Your task to perform on an android device: Search for seafood restaurants on Google Maps Image 0: 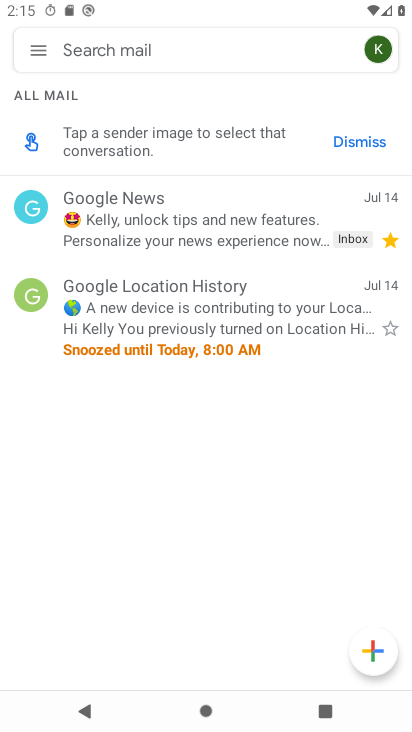
Step 0: press home button
Your task to perform on an android device: Search for seafood restaurants on Google Maps Image 1: 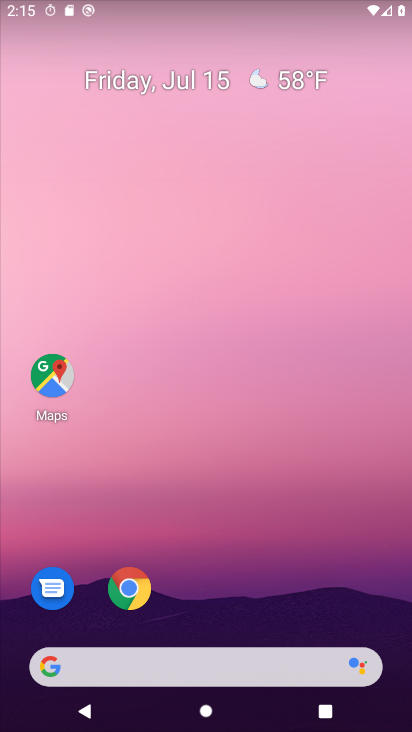
Step 1: click (57, 368)
Your task to perform on an android device: Search for seafood restaurants on Google Maps Image 2: 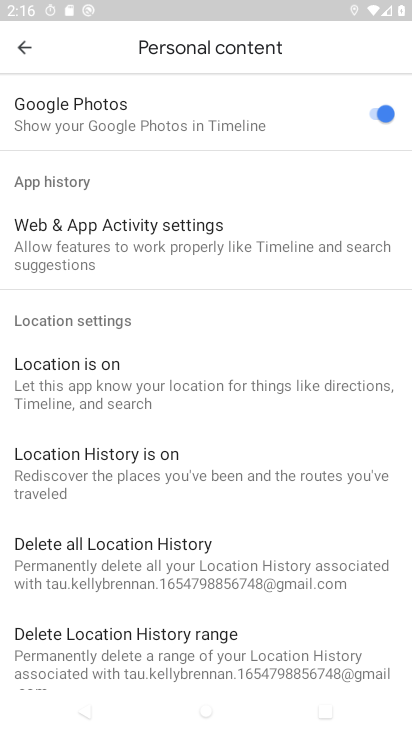
Step 2: click (13, 48)
Your task to perform on an android device: Search for seafood restaurants on Google Maps Image 3: 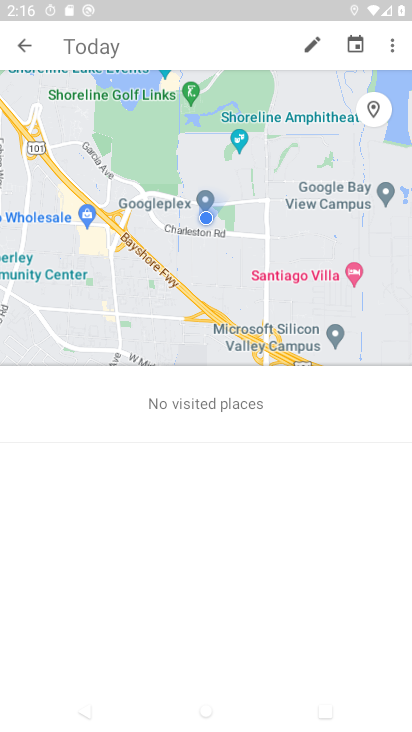
Step 3: click (23, 46)
Your task to perform on an android device: Search for seafood restaurants on Google Maps Image 4: 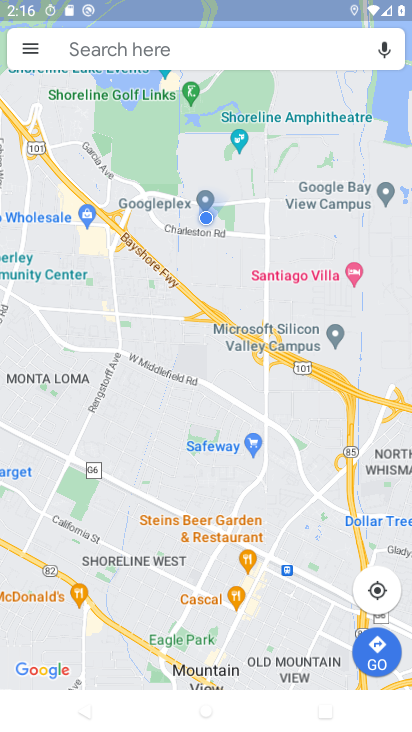
Step 4: click (151, 52)
Your task to perform on an android device: Search for seafood restaurants on Google Maps Image 5: 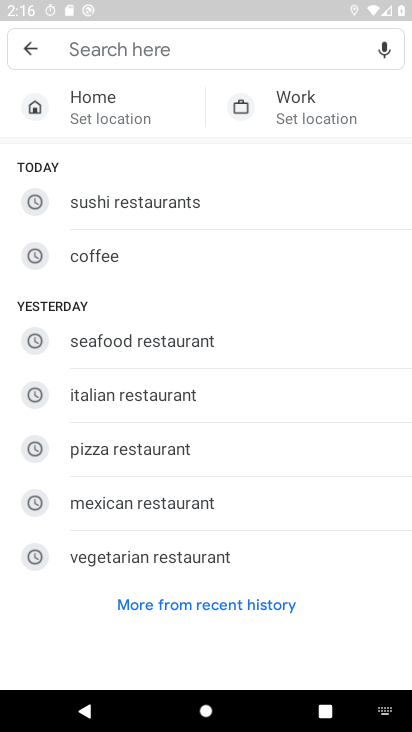
Step 5: type "seafood restaurants"
Your task to perform on an android device: Search for seafood restaurants on Google Maps Image 6: 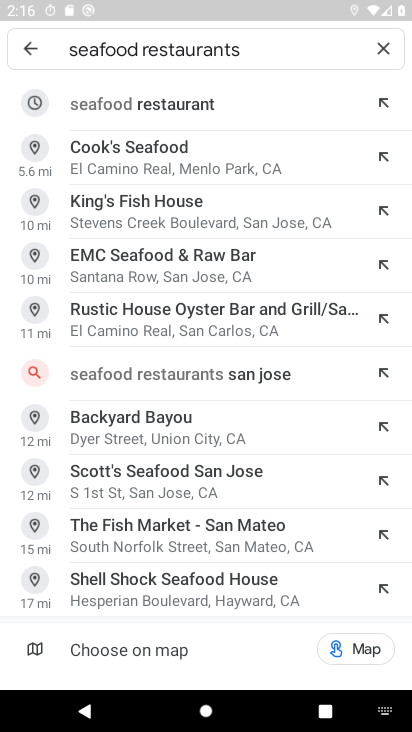
Step 6: click (174, 109)
Your task to perform on an android device: Search for seafood restaurants on Google Maps Image 7: 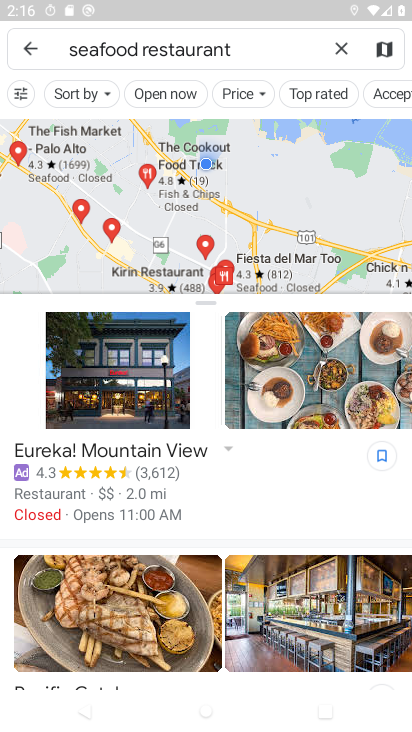
Step 7: task complete